Your task to perform on an android device: Open Youtube and go to the subscriptions tab Image 0: 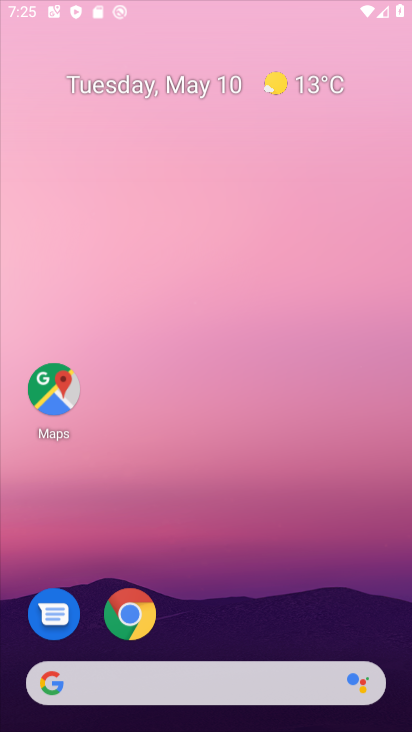
Step 0: click (343, 89)
Your task to perform on an android device: Open Youtube and go to the subscriptions tab Image 1: 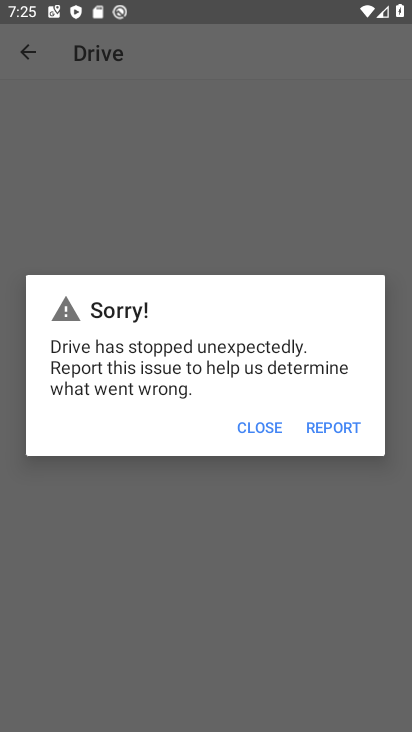
Step 1: press home button
Your task to perform on an android device: Open Youtube and go to the subscriptions tab Image 2: 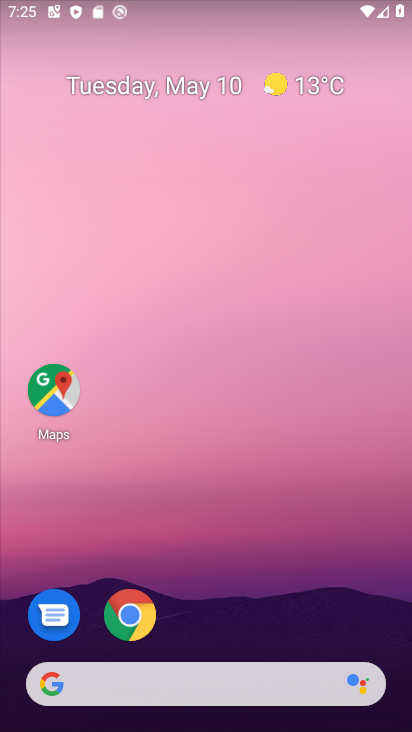
Step 2: drag from (285, 596) to (240, 124)
Your task to perform on an android device: Open Youtube and go to the subscriptions tab Image 3: 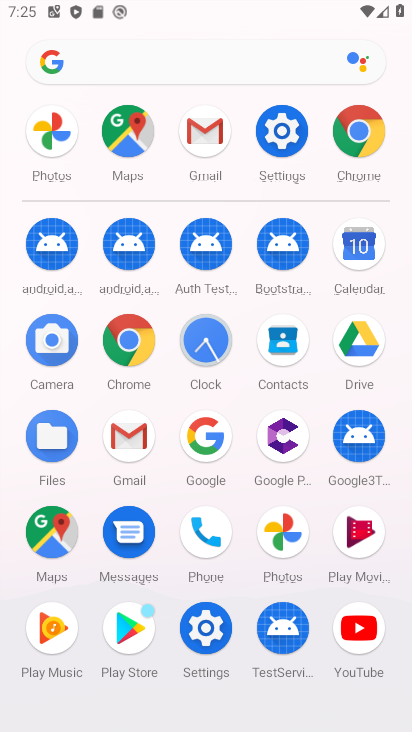
Step 3: click (362, 632)
Your task to perform on an android device: Open Youtube and go to the subscriptions tab Image 4: 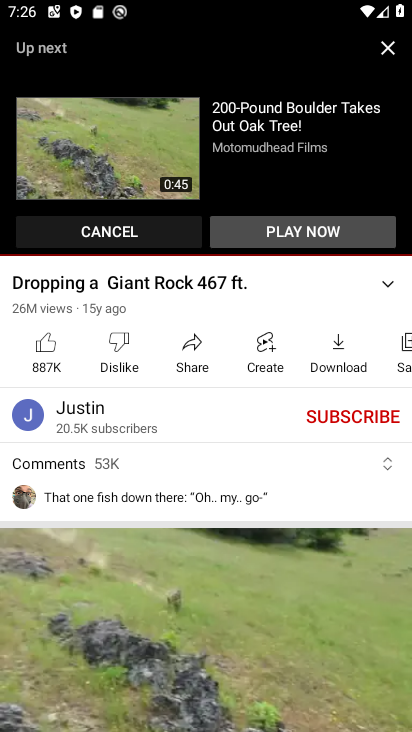
Step 4: click (391, 45)
Your task to perform on an android device: Open Youtube and go to the subscriptions tab Image 5: 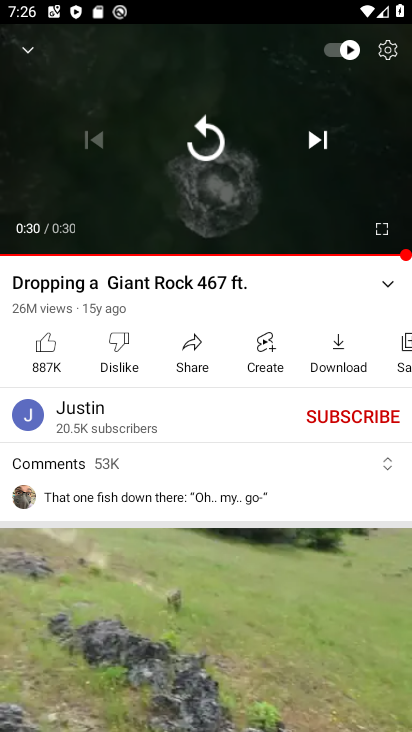
Step 5: press back button
Your task to perform on an android device: Open Youtube and go to the subscriptions tab Image 6: 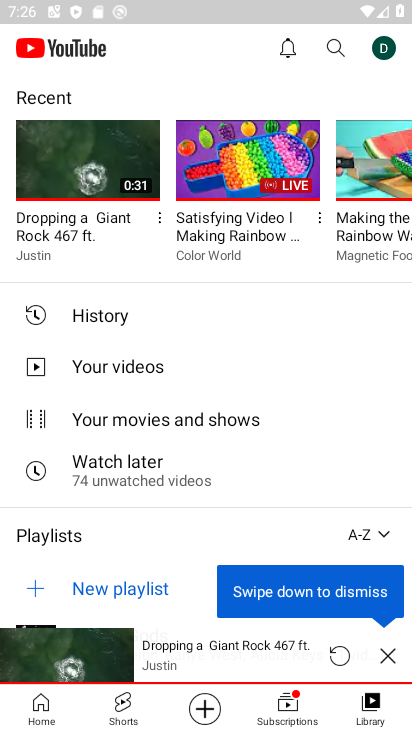
Step 6: click (286, 703)
Your task to perform on an android device: Open Youtube and go to the subscriptions tab Image 7: 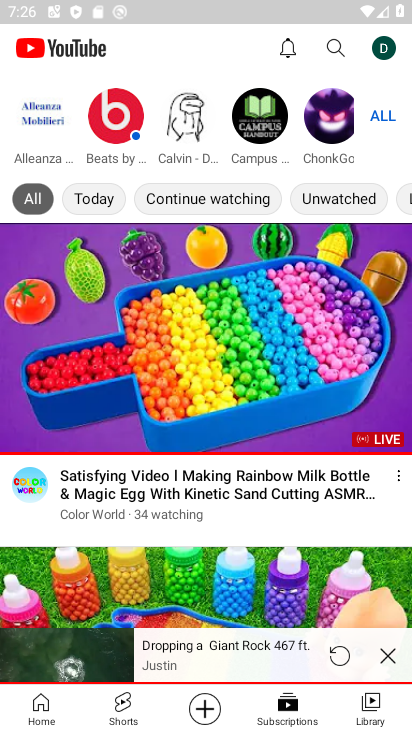
Step 7: task complete